Your task to perform on an android device: Go to accessibility settings Image 0: 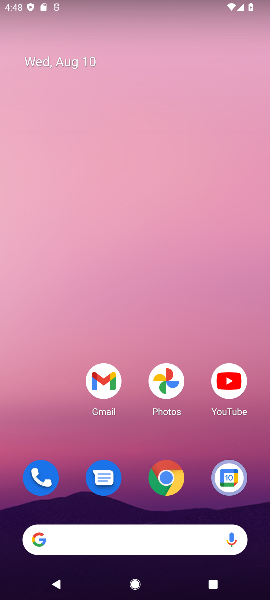
Step 0: drag from (76, 498) to (23, 154)
Your task to perform on an android device: Go to accessibility settings Image 1: 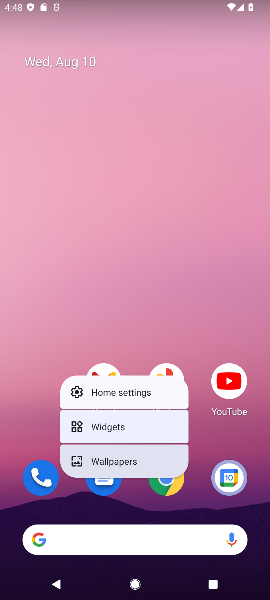
Step 1: click (14, 505)
Your task to perform on an android device: Go to accessibility settings Image 2: 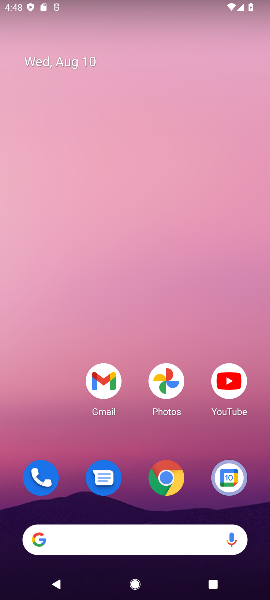
Step 2: drag from (14, 505) to (26, 278)
Your task to perform on an android device: Go to accessibility settings Image 3: 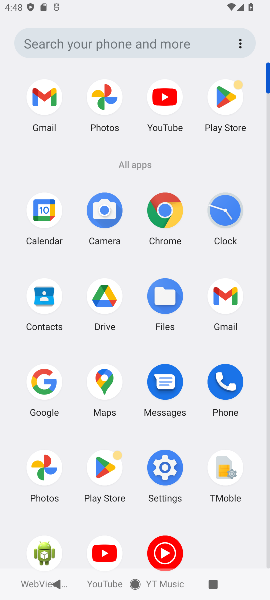
Step 3: click (164, 472)
Your task to perform on an android device: Go to accessibility settings Image 4: 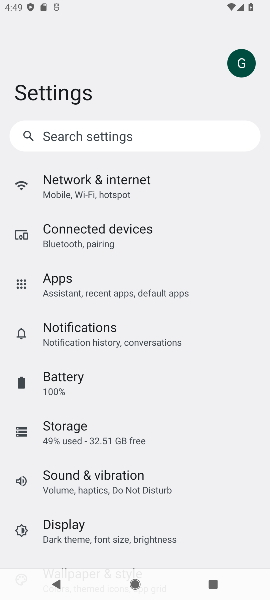
Step 4: drag from (142, 515) to (163, 439)
Your task to perform on an android device: Go to accessibility settings Image 5: 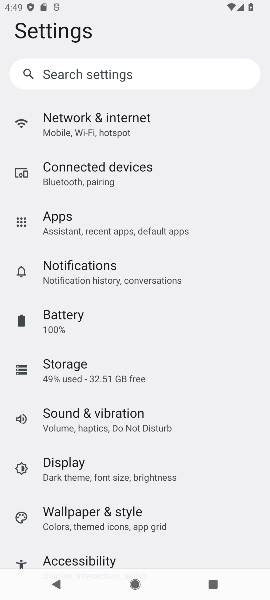
Step 5: drag from (157, 401) to (159, 327)
Your task to perform on an android device: Go to accessibility settings Image 6: 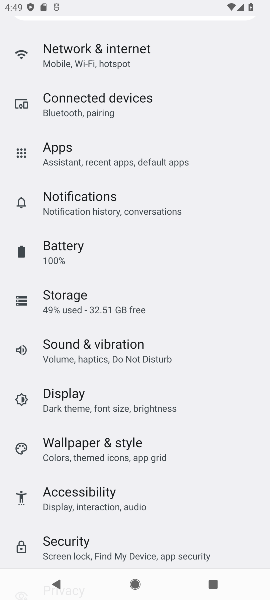
Step 6: click (106, 494)
Your task to perform on an android device: Go to accessibility settings Image 7: 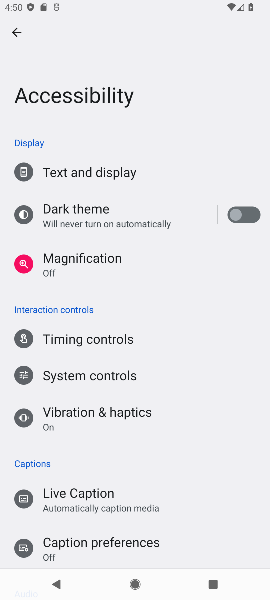
Step 7: task complete